Your task to perform on an android device: toggle pop-ups in chrome Image 0: 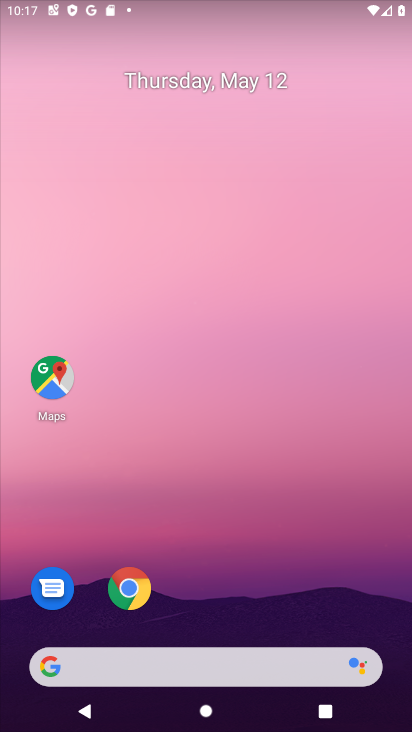
Step 0: click (129, 581)
Your task to perform on an android device: toggle pop-ups in chrome Image 1: 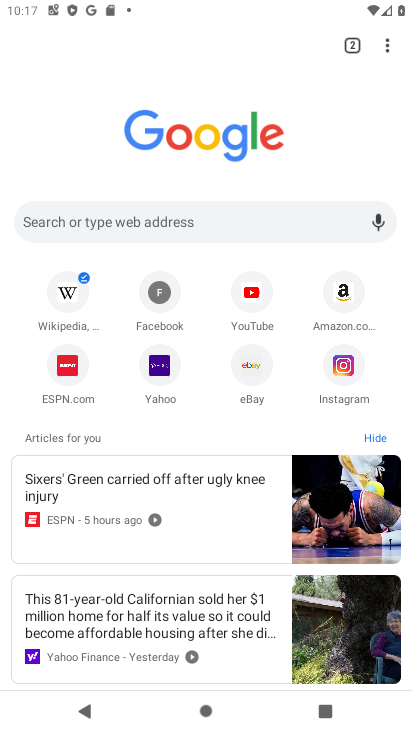
Step 1: click (384, 49)
Your task to perform on an android device: toggle pop-ups in chrome Image 2: 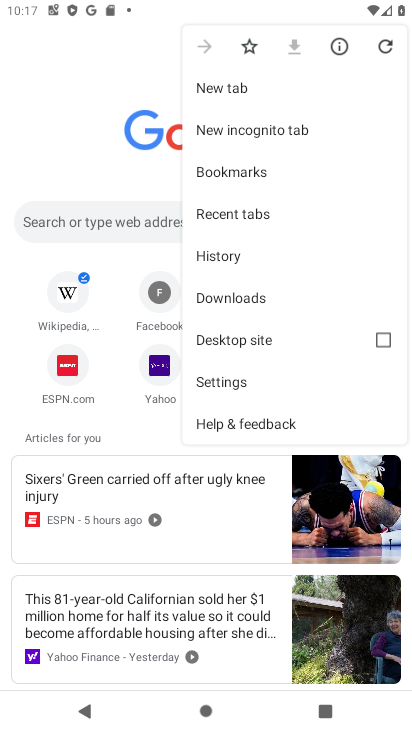
Step 2: click (229, 381)
Your task to perform on an android device: toggle pop-ups in chrome Image 3: 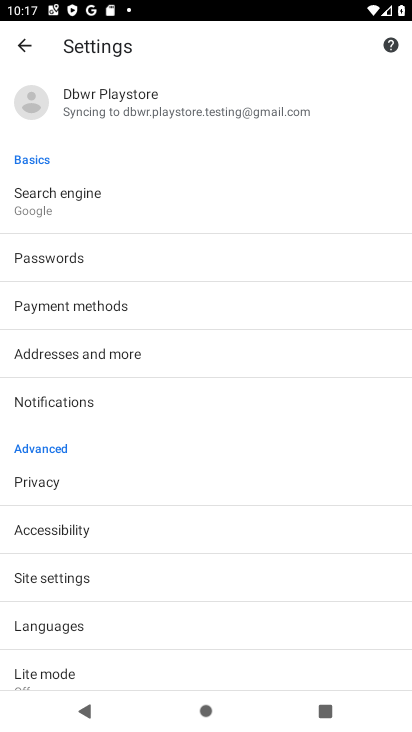
Step 3: click (32, 577)
Your task to perform on an android device: toggle pop-ups in chrome Image 4: 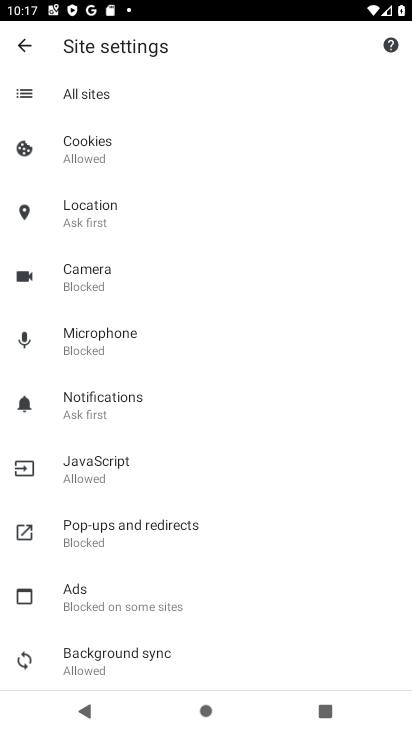
Step 4: click (94, 519)
Your task to perform on an android device: toggle pop-ups in chrome Image 5: 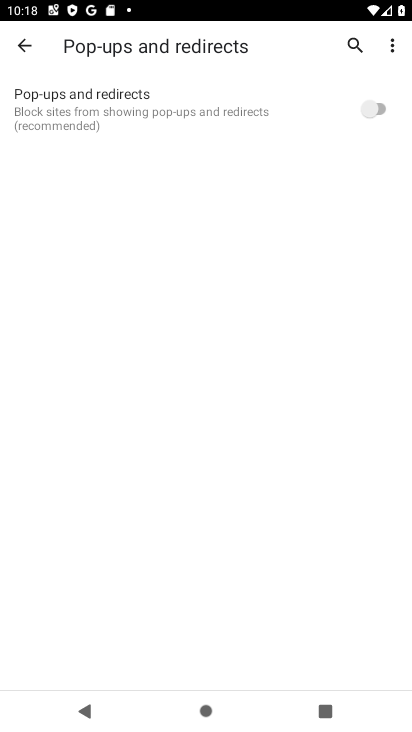
Step 5: click (380, 105)
Your task to perform on an android device: toggle pop-ups in chrome Image 6: 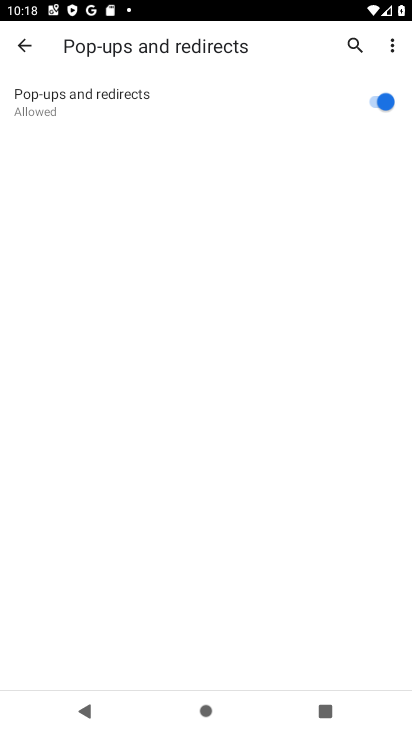
Step 6: task complete